Your task to perform on an android device: What's on my calendar today? Image 0: 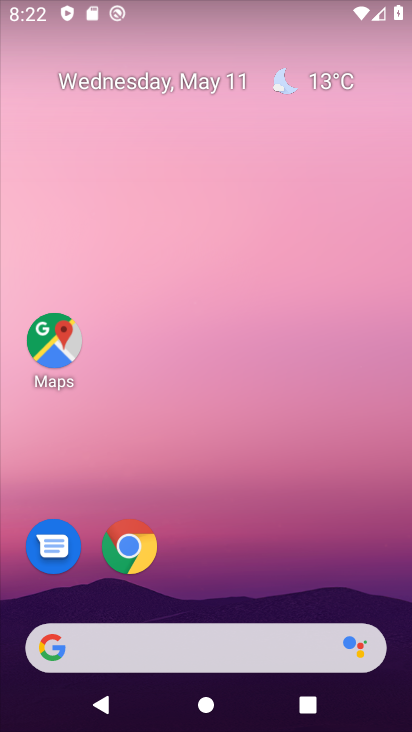
Step 0: drag from (191, 537) to (320, 13)
Your task to perform on an android device: What's on my calendar today? Image 1: 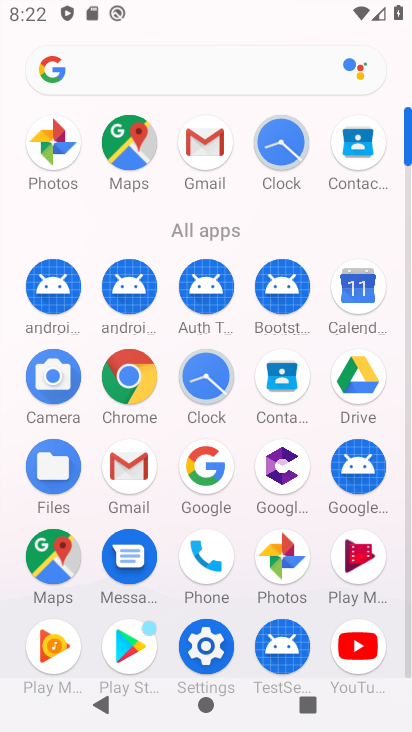
Step 1: click (355, 288)
Your task to perform on an android device: What's on my calendar today? Image 2: 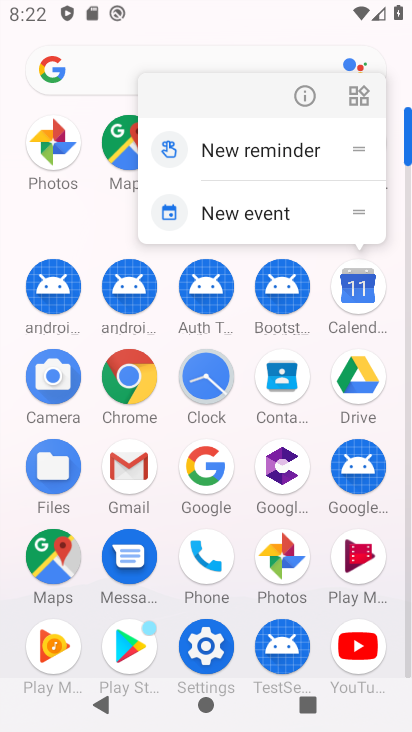
Step 2: click (363, 284)
Your task to perform on an android device: What's on my calendar today? Image 3: 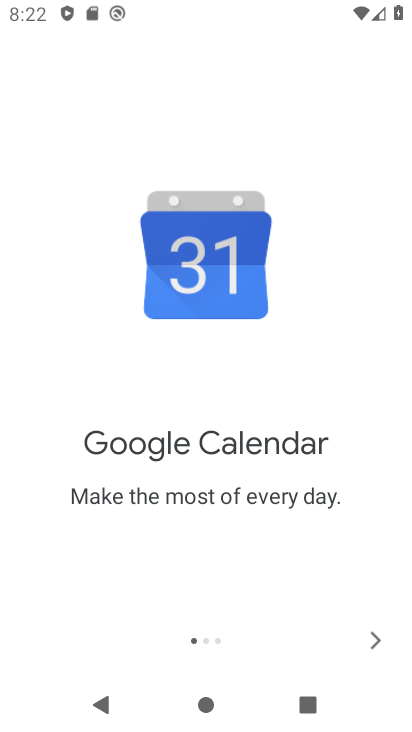
Step 3: click (372, 649)
Your task to perform on an android device: What's on my calendar today? Image 4: 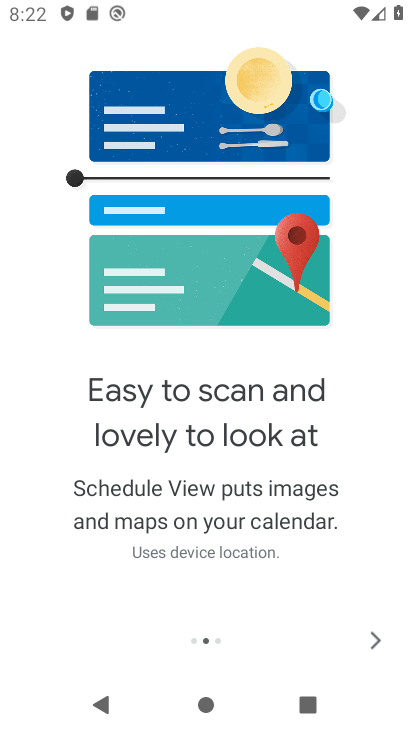
Step 4: click (372, 649)
Your task to perform on an android device: What's on my calendar today? Image 5: 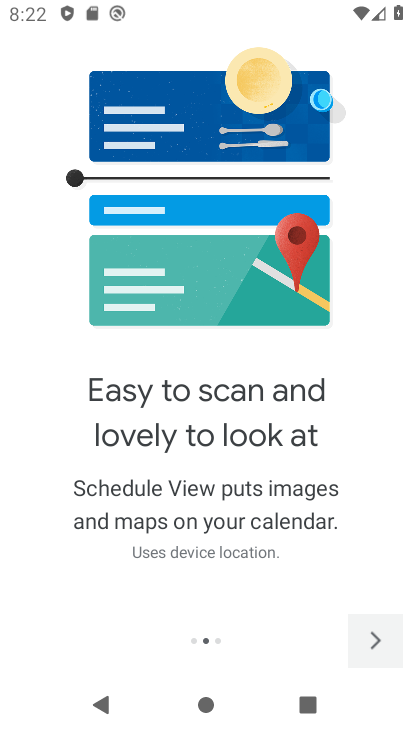
Step 5: click (372, 649)
Your task to perform on an android device: What's on my calendar today? Image 6: 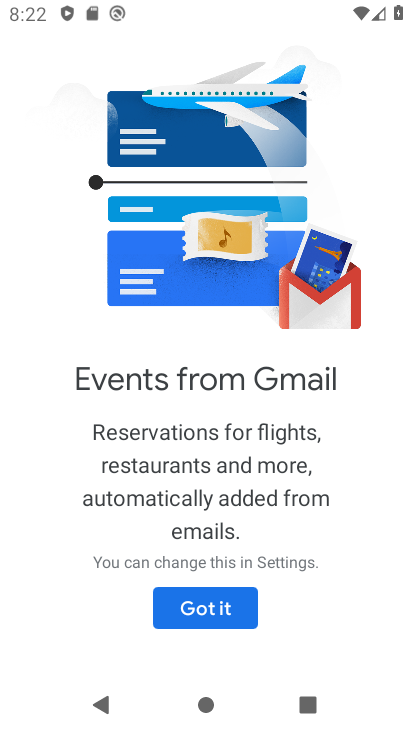
Step 6: click (225, 614)
Your task to perform on an android device: What's on my calendar today? Image 7: 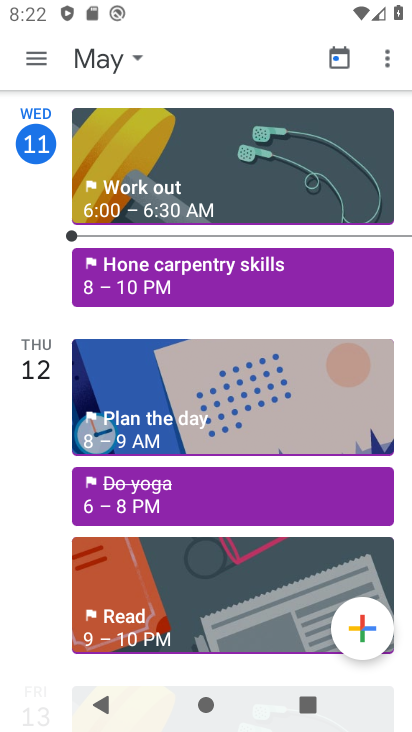
Step 7: click (116, 54)
Your task to perform on an android device: What's on my calendar today? Image 8: 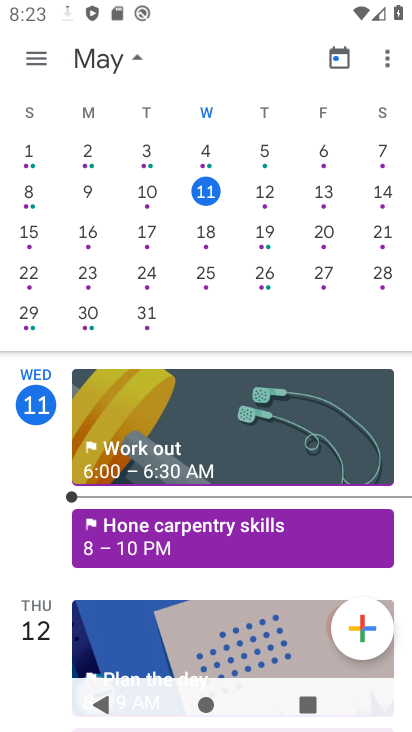
Step 8: drag from (135, 578) to (196, 315)
Your task to perform on an android device: What's on my calendar today? Image 9: 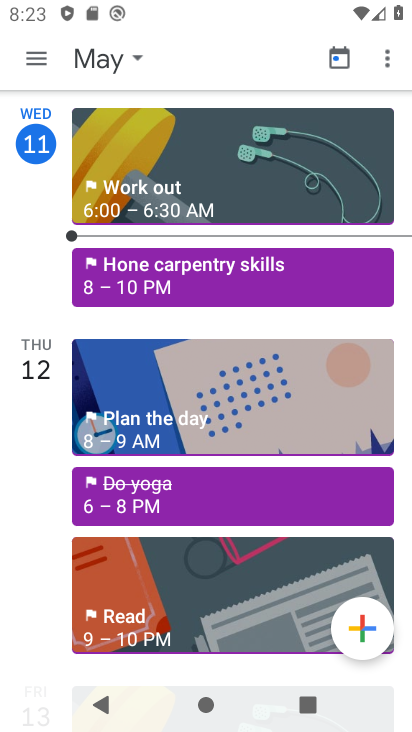
Step 9: drag from (144, 629) to (198, 342)
Your task to perform on an android device: What's on my calendar today? Image 10: 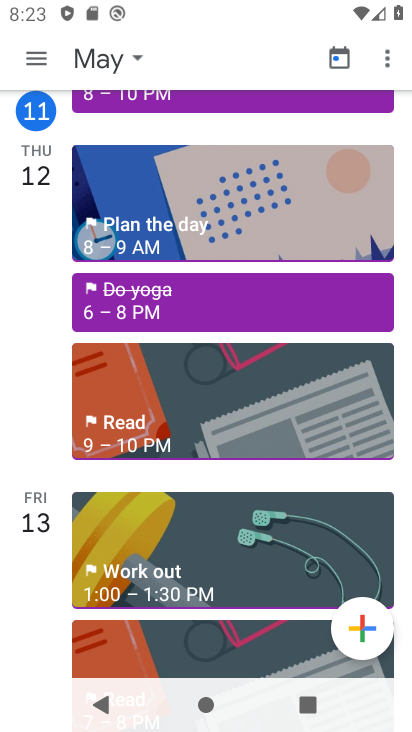
Step 10: click (174, 403)
Your task to perform on an android device: What's on my calendar today? Image 11: 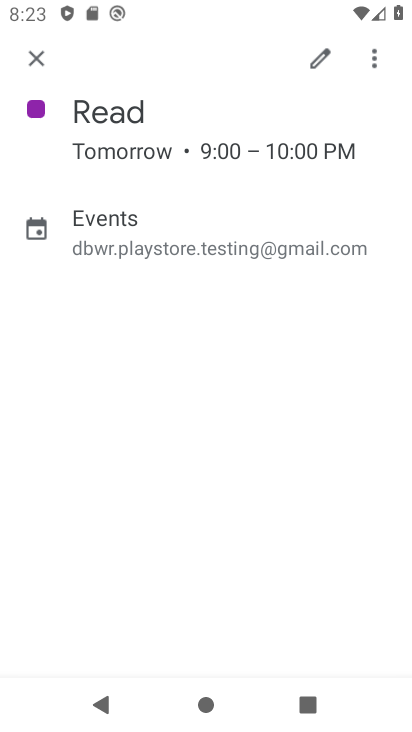
Step 11: task complete